Your task to perform on an android device: turn off picture-in-picture Image 0: 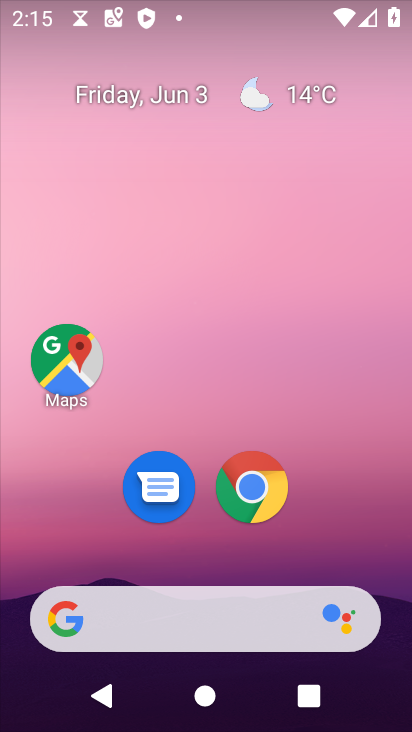
Step 0: drag from (331, 551) to (196, 17)
Your task to perform on an android device: turn off picture-in-picture Image 1: 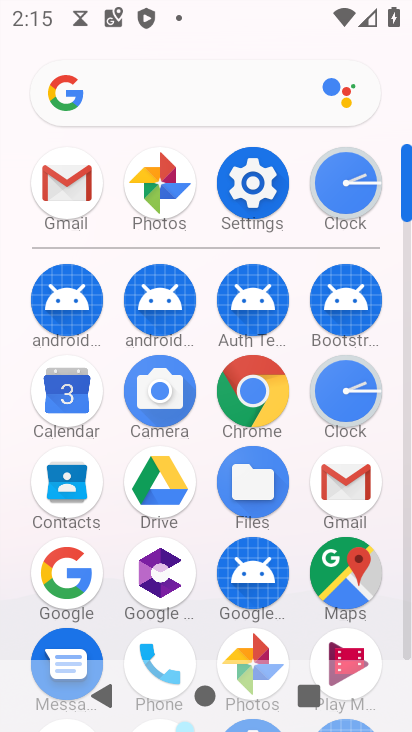
Step 1: click (274, 192)
Your task to perform on an android device: turn off picture-in-picture Image 2: 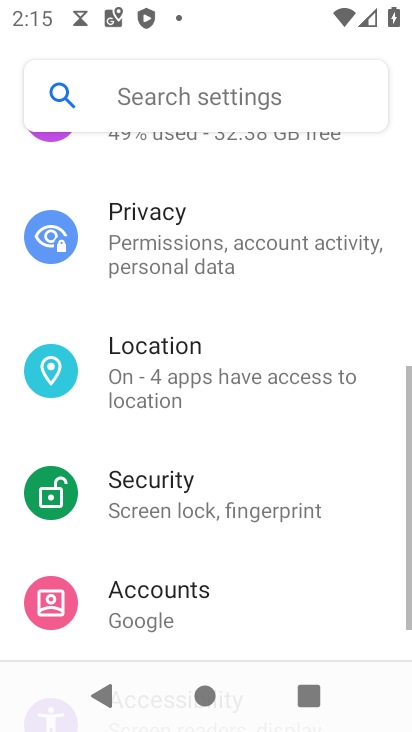
Step 2: drag from (235, 467) to (246, 729)
Your task to perform on an android device: turn off picture-in-picture Image 3: 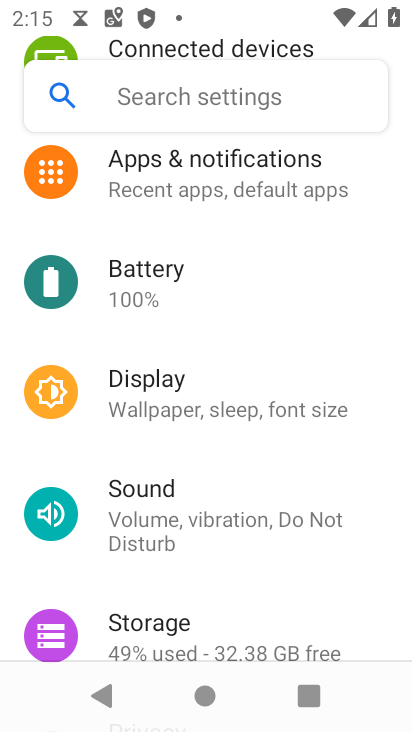
Step 3: click (204, 199)
Your task to perform on an android device: turn off picture-in-picture Image 4: 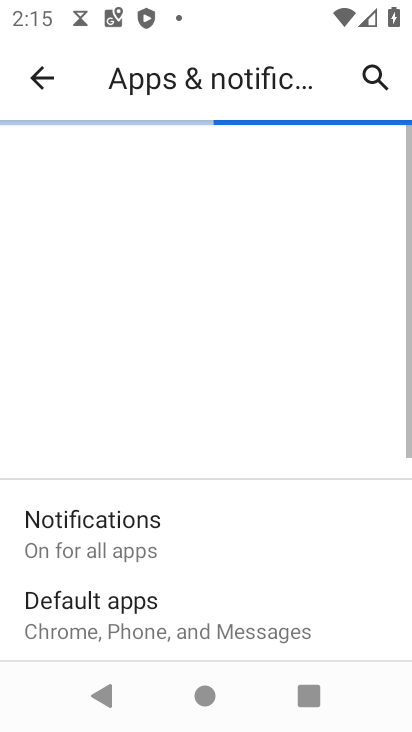
Step 4: drag from (262, 622) to (175, 159)
Your task to perform on an android device: turn off picture-in-picture Image 5: 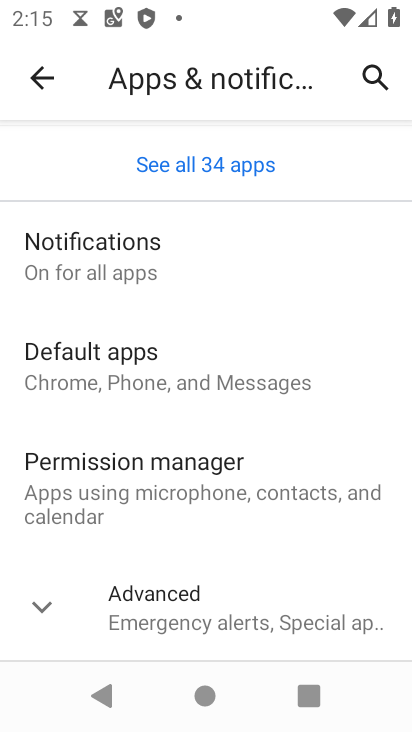
Step 5: click (222, 605)
Your task to perform on an android device: turn off picture-in-picture Image 6: 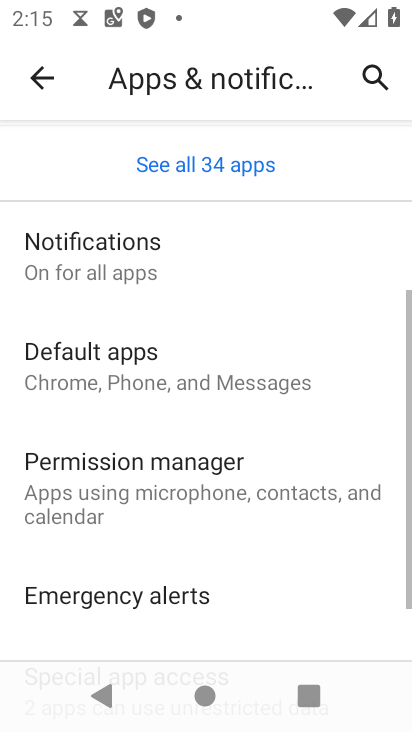
Step 6: drag from (269, 571) to (219, 115)
Your task to perform on an android device: turn off picture-in-picture Image 7: 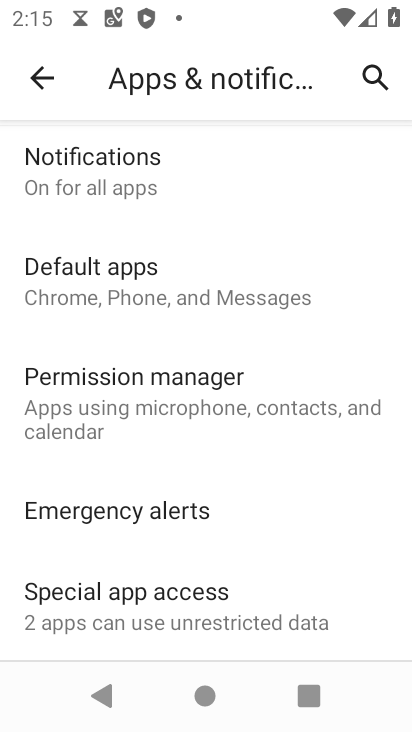
Step 7: click (227, 596)
Your task to perform on an android device: turn off picture-in-picture Image 8: 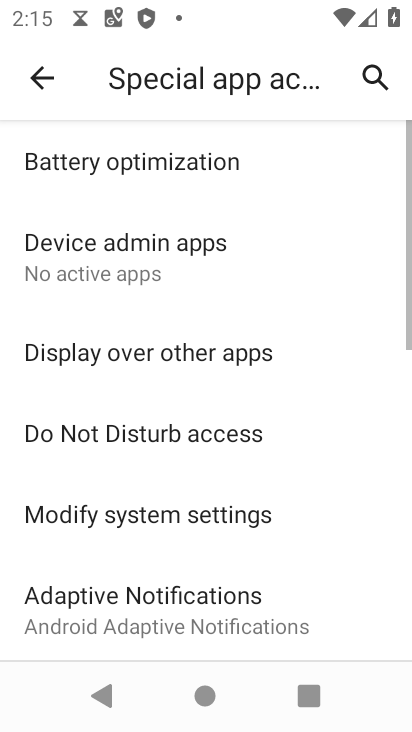
Step 8: drag from (245, 573) to (222, 168)
Your task to perform on an android device: turn off picture-in-picture Image 9: 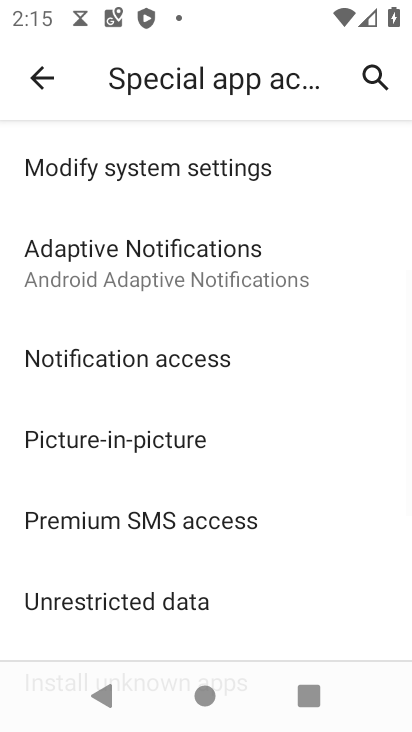
Step 9: click (189, 459)
Your task to perform on an android device: turn off picture-in-picture Image 10: 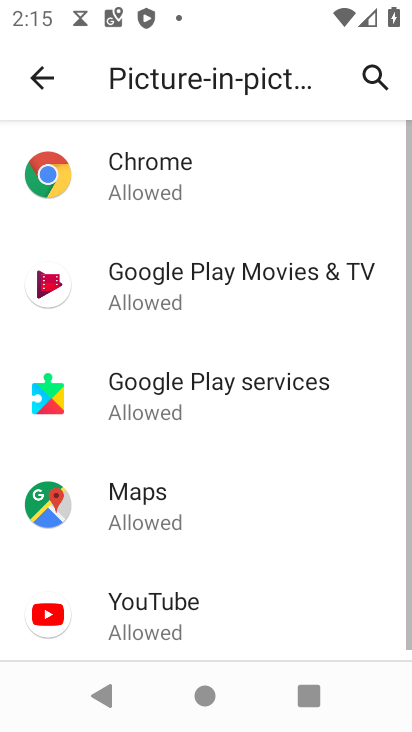
Step 10: click (235, 294)
Your task to perform on an android device: turn off picture-in-picture Image 11: 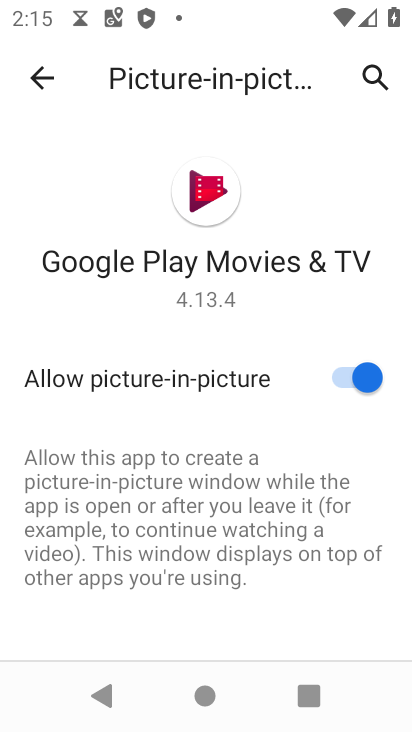
Step 11: click (360, 386)
Your task to perform on an android device: turn off picture-in-picture Image 12: 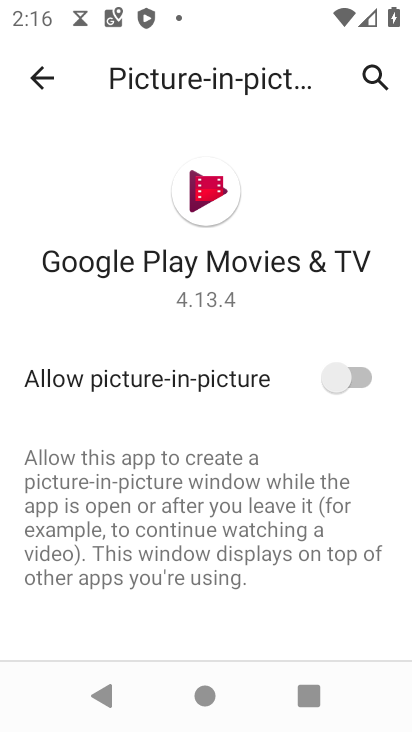
Step 12: task complete